Your task to perform on an android device: change the clock display to digital Image 0: 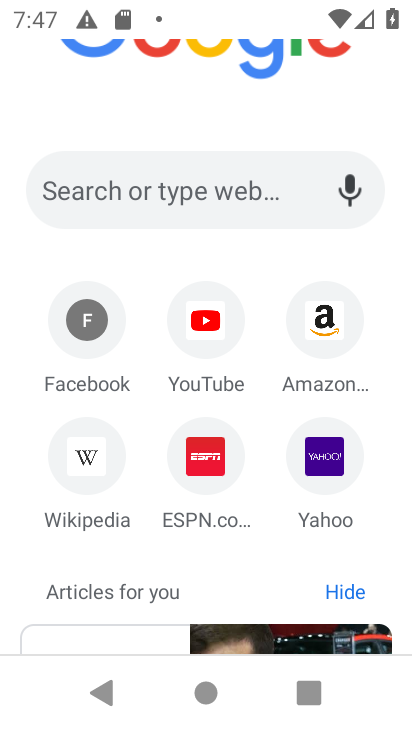
Step 0: press home button
Your task to perform on an android device: change the clock display to digital Image 1: 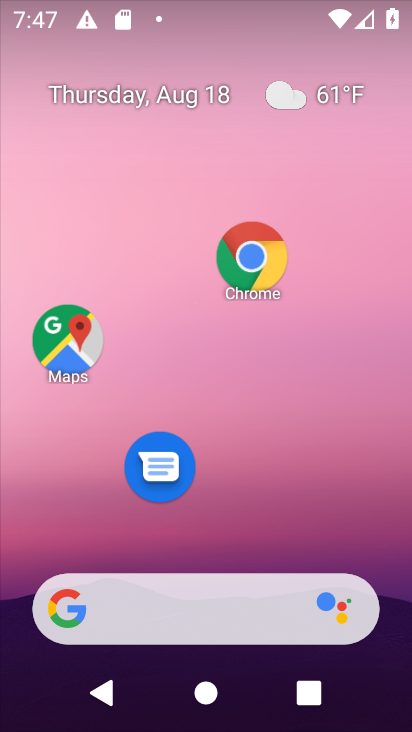
Step 1: task complete